Your task to perform on an android device: Go to Maps Image 0: 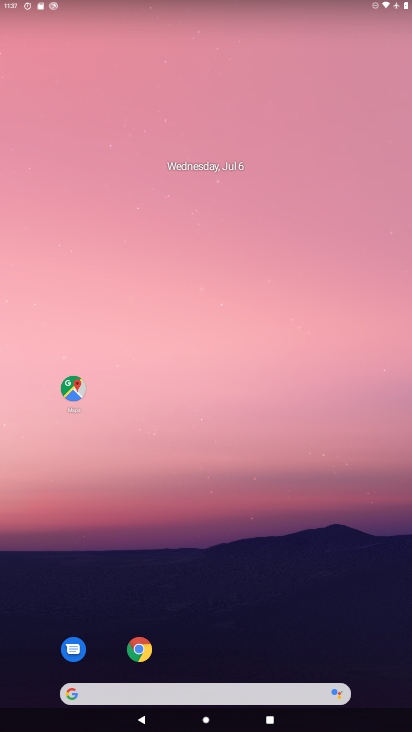
Step 0: click (71, 387)
Your task to perform on an android device: Go to Maps Image 1: 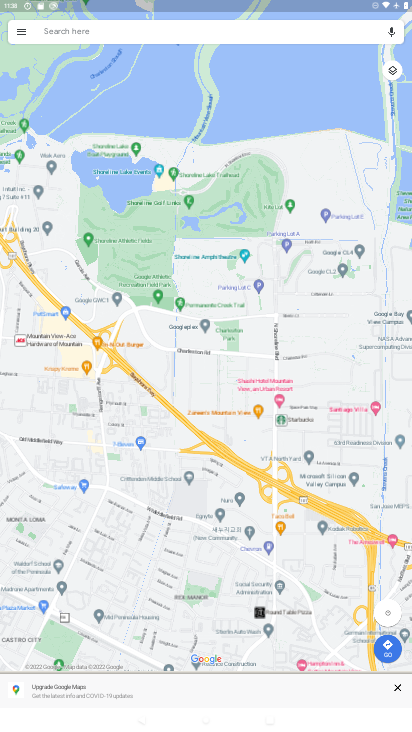
Step 1: task complete